Your task to perform on an android device: What is the news today? Image 0: 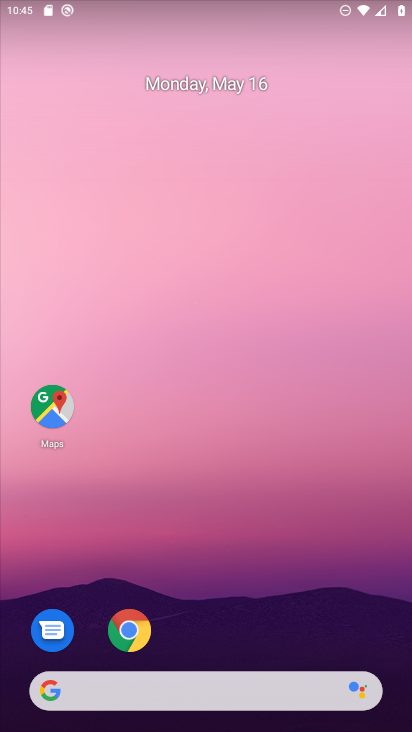
Step 0: drag from (221, 633) to (228, 191)
Your task to perform on an android device: What is the news today? Image 1: 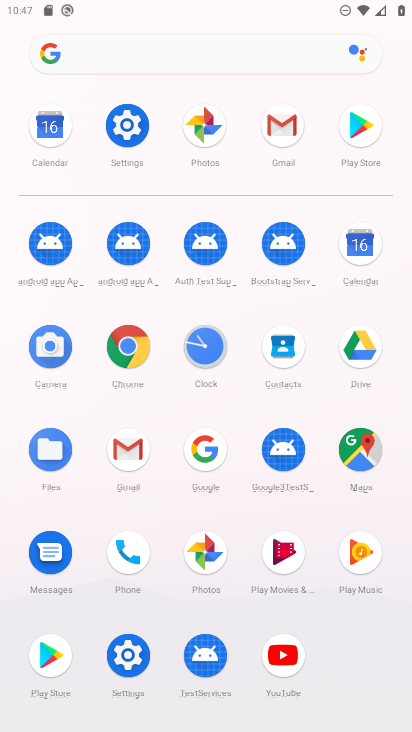
Step 1: click (204, 447)
Your task to perform on an android device: What is the news today? Image 2: 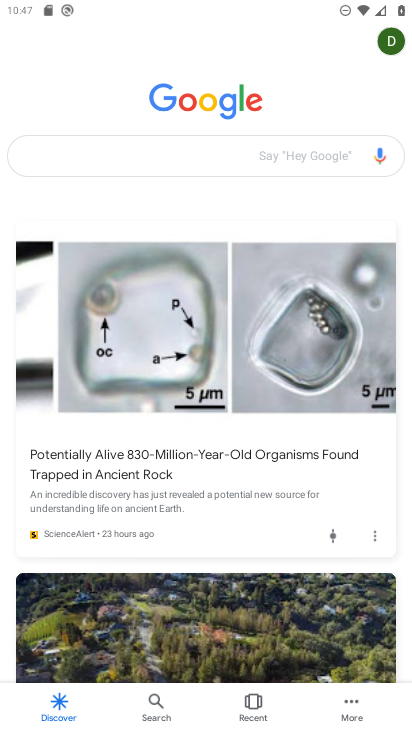
Step 2: click (144, 157)
Your task to perform on an android device: What is the news today? Image 3: 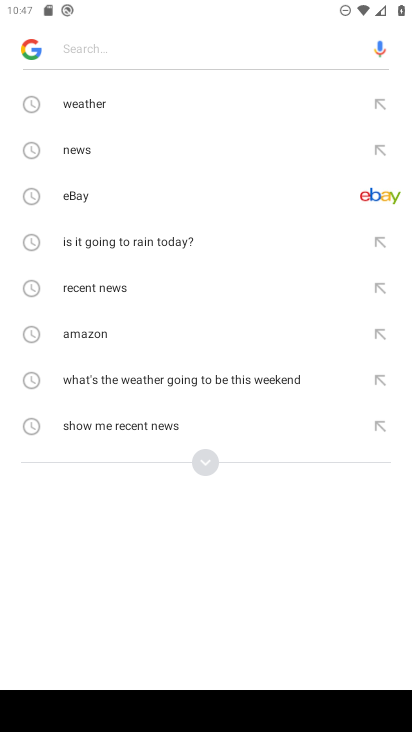
Step 3: click (123, 155)
Your task to perform on an android device: What is the news today? Image 4: 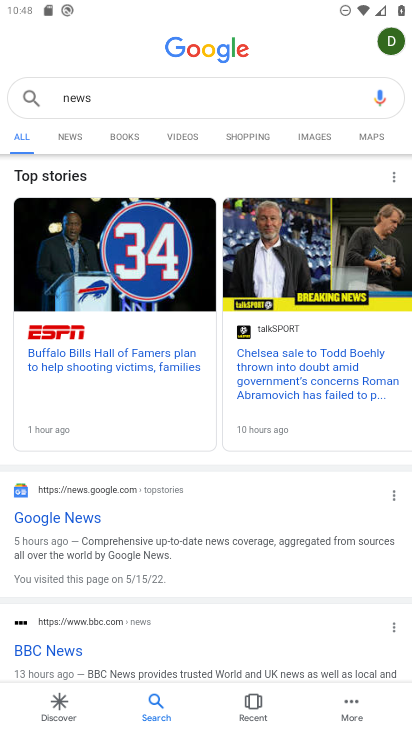
Step 4: click (76, 139)
Your task to perform on an android device: What is the news today? Image 5: 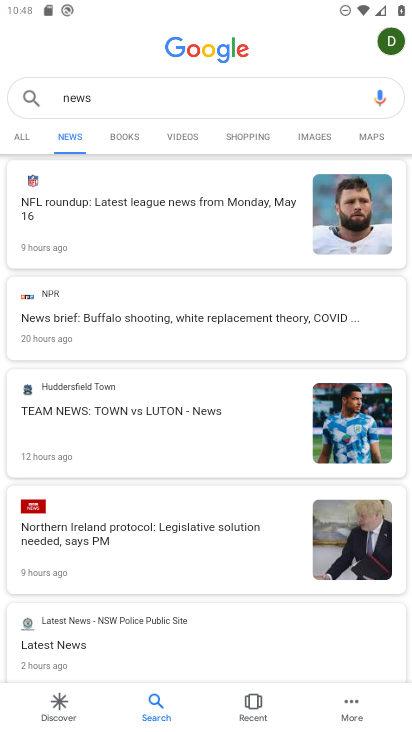
Step 5: task complete